Your task to perform on an android device: Search for Mexican restaurants on Maps Image 0: 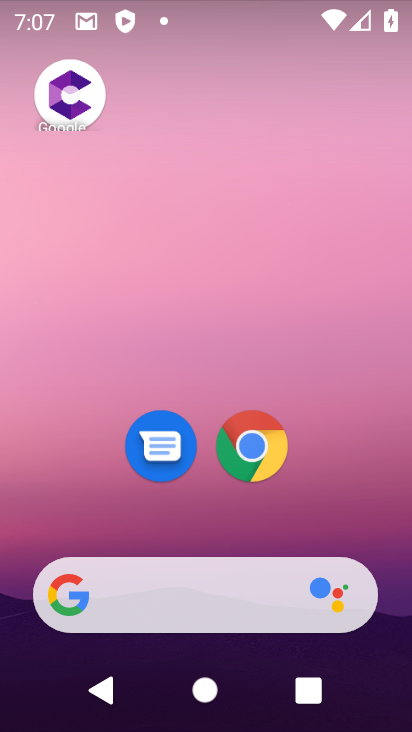
Step 0: drag from (286, 615) to (236, 200)
Your task to perform on an android device: Search for Mexican restaurants on Maps Image 1: 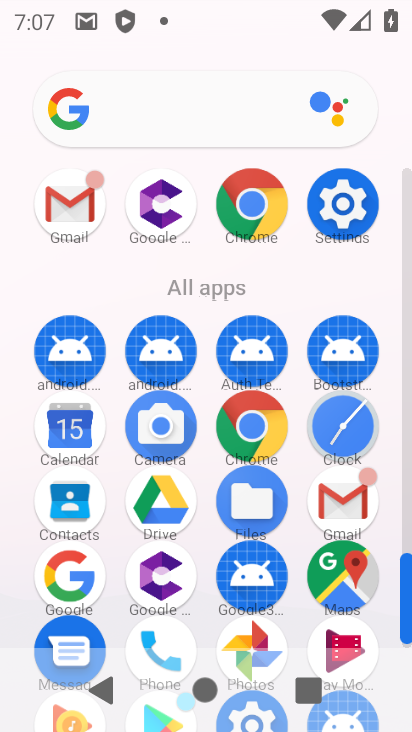
Step 1: click (342, 572)
Your task to perform on an android device: Search for Mexican restaurants on Maps Image 2: 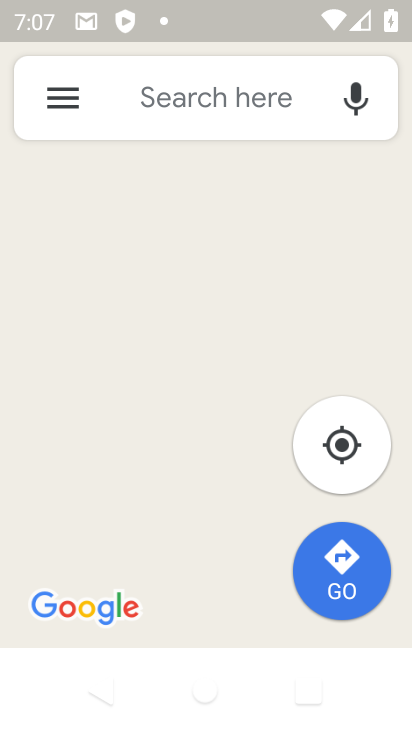
Step 2: click (177, 97)
Your task to perform on an android device: Search for Mexican restaurants on Maps Image 3: 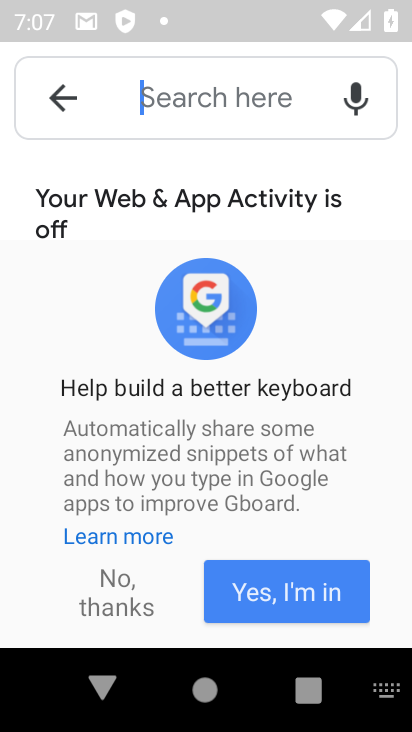
Step 3: click (129, 583)
Your task to perform on an android device: Search for Mexican restaurants on Maps Image 4: 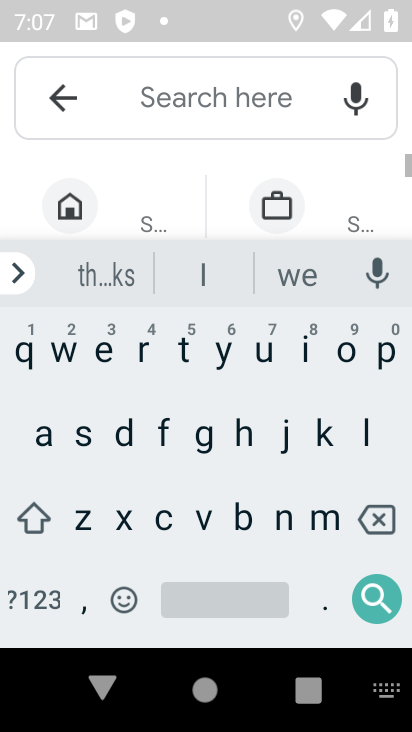
Step 4: click (326, 526)
Your task to perform on an android device: Search for Mexican restaurants on Maps Image 5: 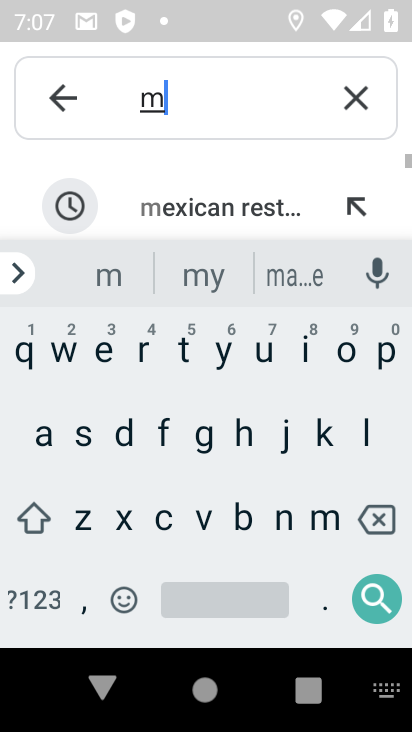
Step 5: click (228, 211)
Your task to perform on an android device: Search for Mexican restaurants on Maps Image 6: 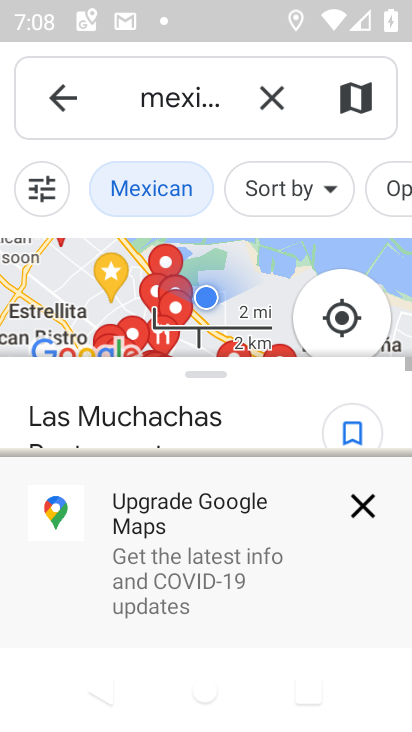
Step 6: click (359, 495)
Your task to perform on an android device: Search for Mexican restaurants on Maps Image 7: 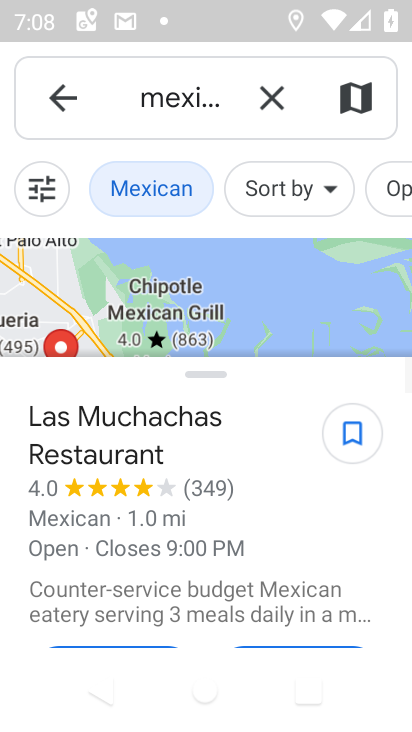
Step 7: task complete